Your task to perform on an android device: clear all cookies in the chrome app Image 0: 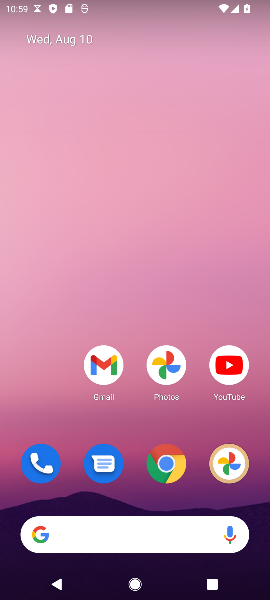
Step 0: click (169, 472)
Your task to perform on an android device: clear all cookies in the chrome app Image 1: 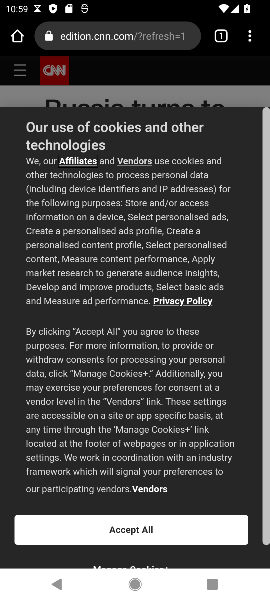
Step 1: click (251, 41)
Your task to perform on an android device: clear all cookies in the chrome app Image 2: 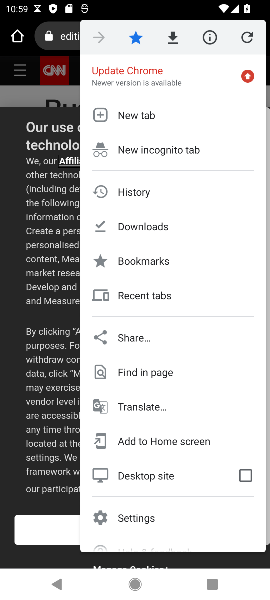
Step 2: click (127, 191)
Your task to perform on an android device: clear all cookies in the chrome app Image 3: 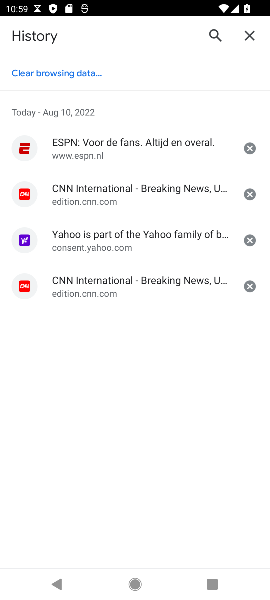
Step 3: click (63, 74)
Your task to perform on an android device: clear all cookies in the chrome app Image 4: 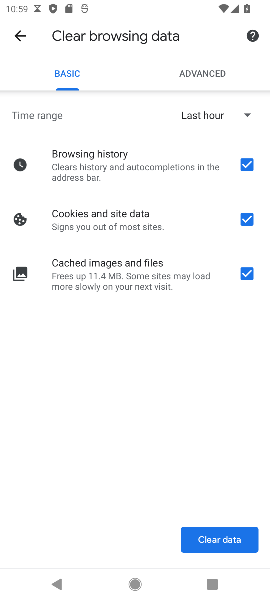
Step 4: click (247, 272)
Your task to perform on an android device: clear all cookies in the chrome app Image 5: 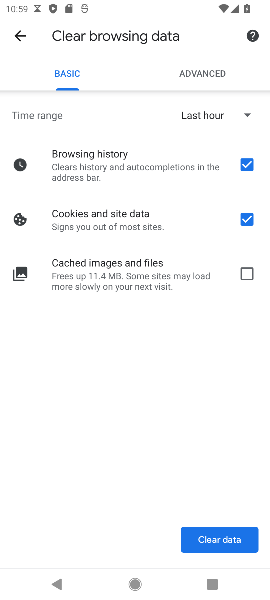
Step 5: click (246, 155)
Your task to perform on an android device: clear all cookies in the chrome app Image 6: 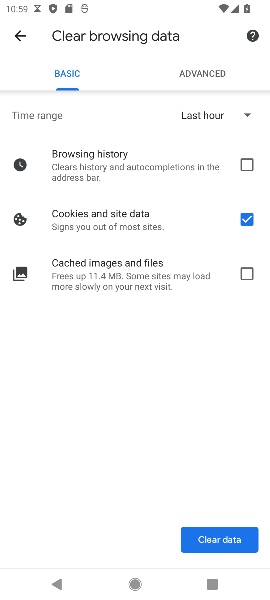
Step 6: click (213, 538)
Your task to perform on an android device: clear all cookies in the chrome app Image 7: 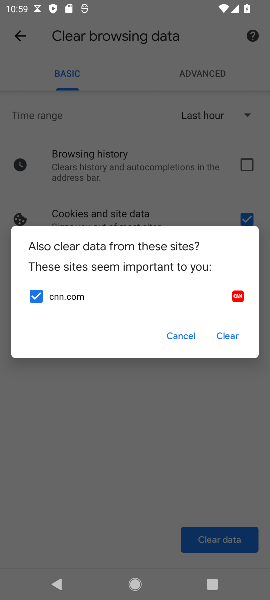
Step 7: click (229, 337)
Your task to perform on an android device: clear all cookies in the chrome app Image 8: 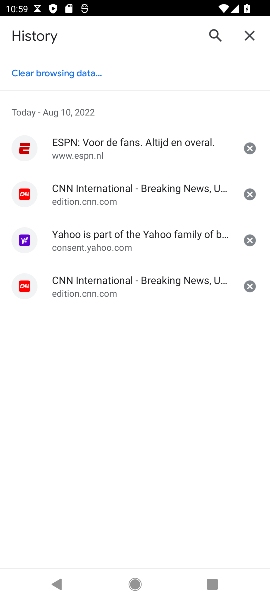
Step 8: task complete